Your task to perform on an android device: Open display settings Image 0: 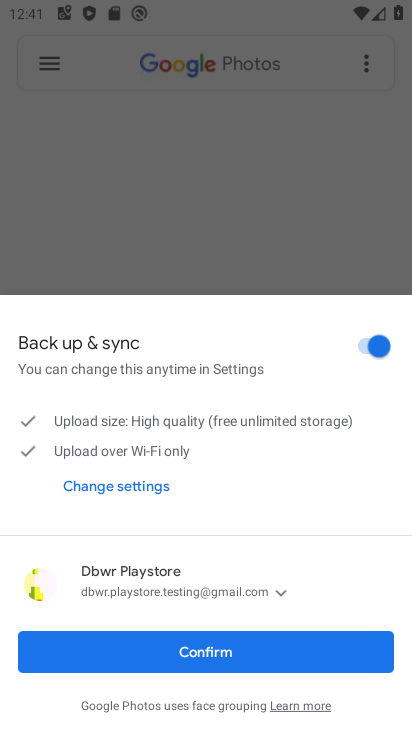
Step 0: press home button
Your task to perform on an android device: Open display settings Image 1: 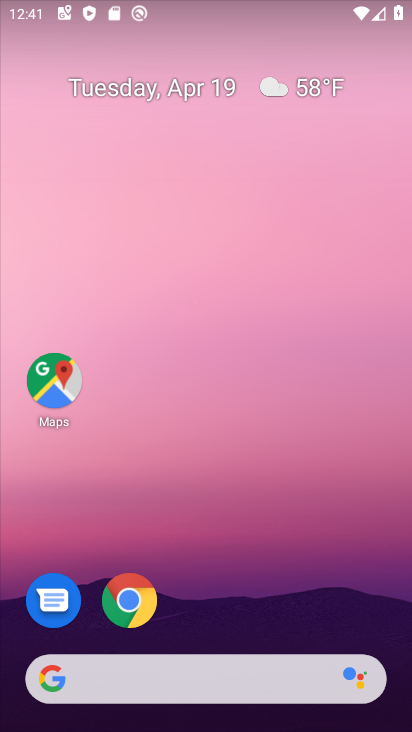
Step 1: drag from (202, 361) to (243, 28)
Your task to perform on an android device: Open display settings Image 2: 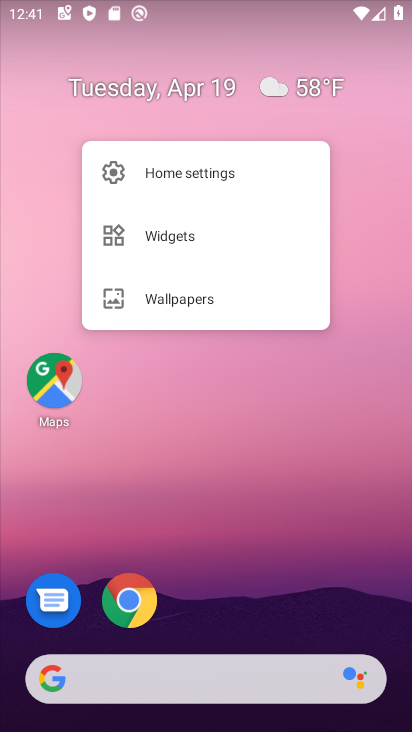
Step 2: click (206, 621)
Your task to perform on an android device: Open display settings Image 3: 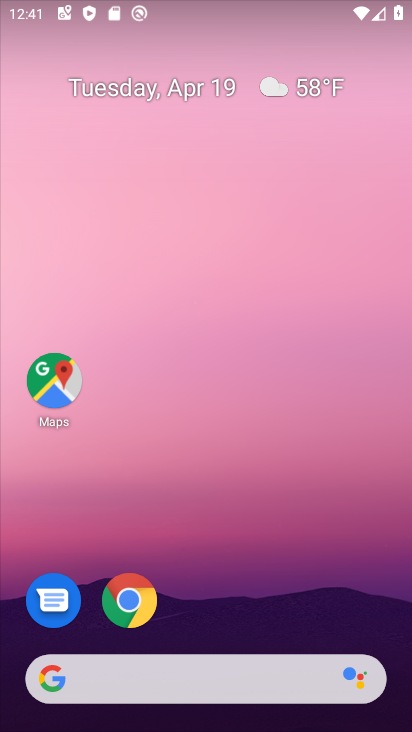
Step 3: drag from (207, 587) to (242, 70)
Your task to perform on an android device: Open display settings Image 4: 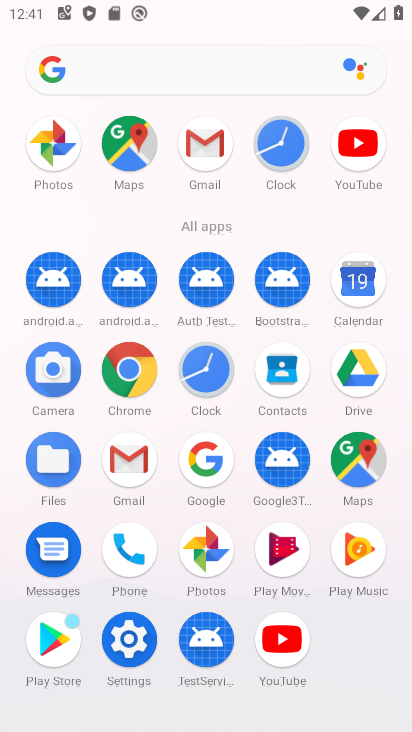
Step 4: click (140, 641)
Your task to perform on an android device: Open display settings Image 5: 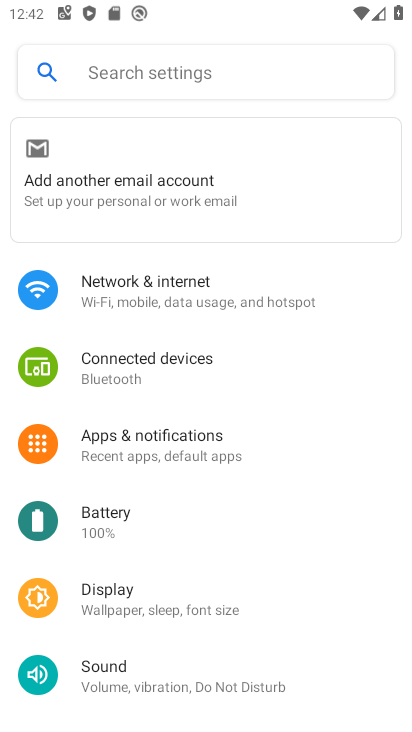
Step 5: click (158, 606)
Your task to perform on an android device: Open display settings Image 6: 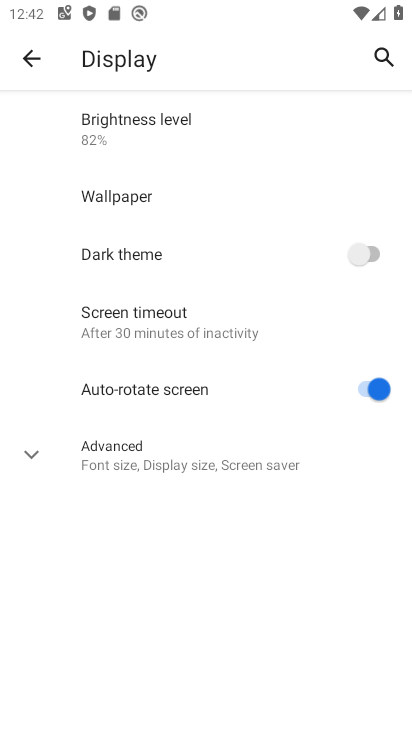
Step 6: task complete